Your task to perform on an android device: Open Google Image 0: 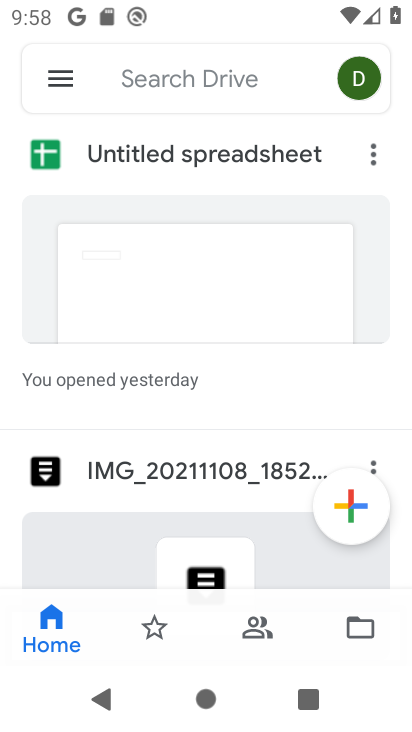
Step 0: press home button
Your task to perform on an android device: Open Google Image 1: 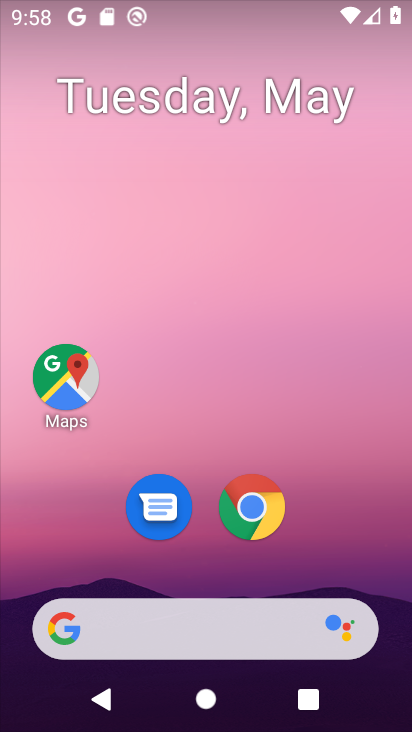
Step 1: click (199, 636)
Your task to perform on an android device: Open Google Image 2: 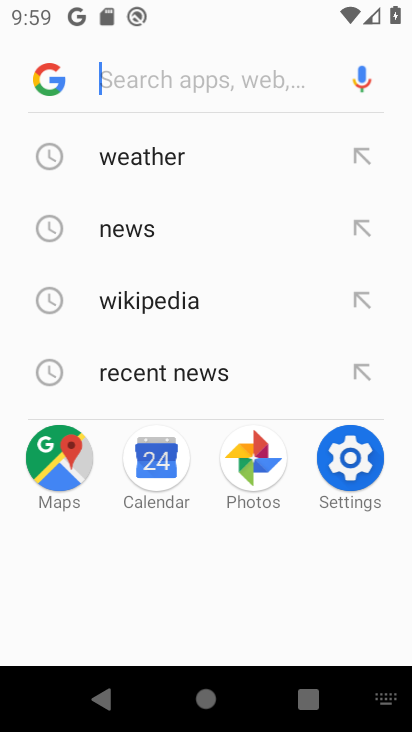
Step 2: task complete